Your task to perform on an android device: Go to battery settings Image 0: 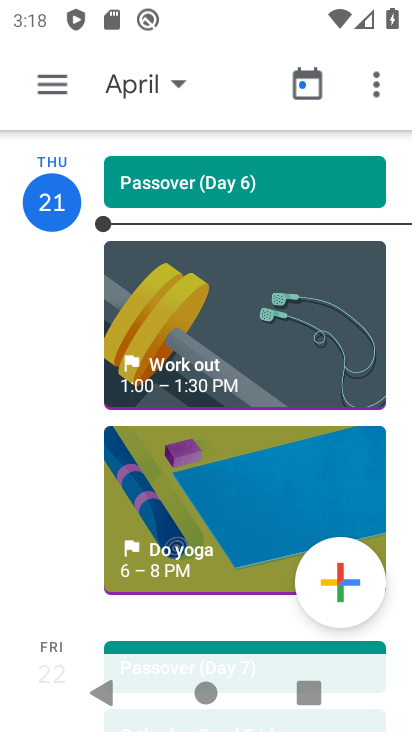
Step 0: press home button
Your task to perform on an android device: Go to battery settings Image 1: 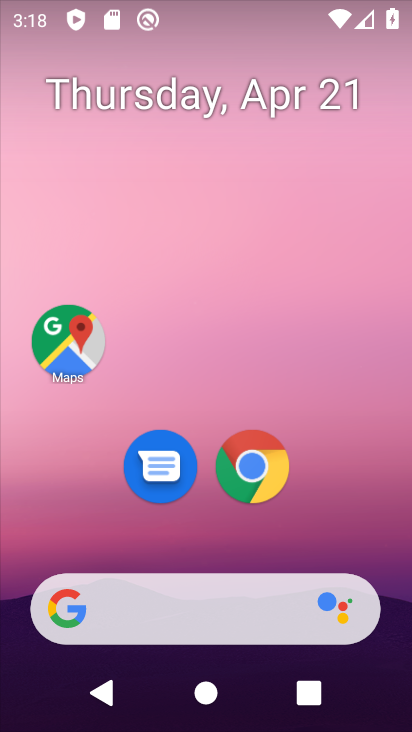
Step 1: drag from (204, 528) to (181, 194)
Your task to perform on an android device: Go to battery settings Image 2: 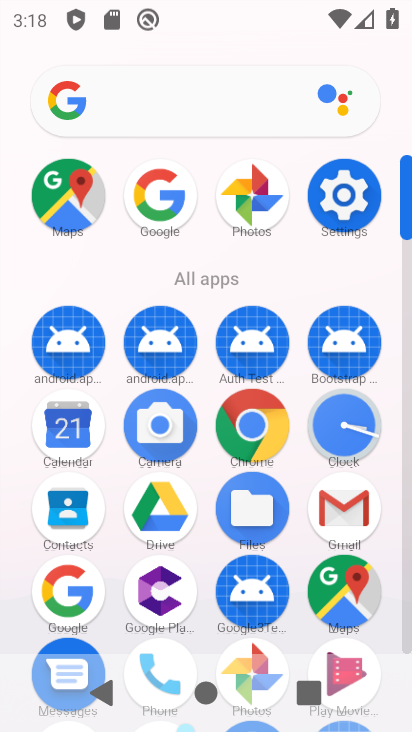
Step 2: click (330, 195)
Your task to perform on an android device: Go to battery settings Image 3: 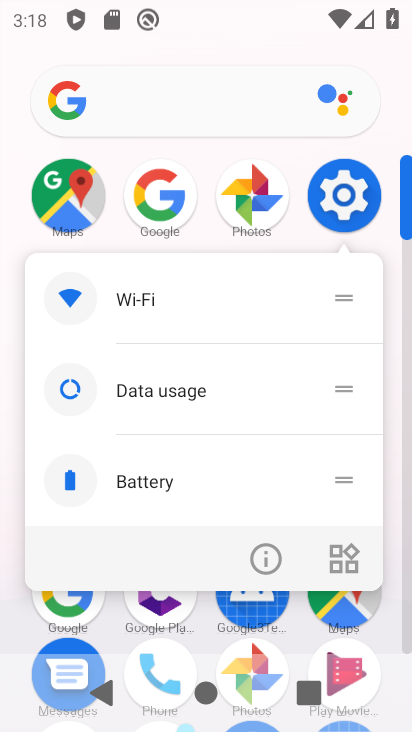
Step 3: click (356, 206)
Your task to perform on an android device: Go to battery settings Image 4: 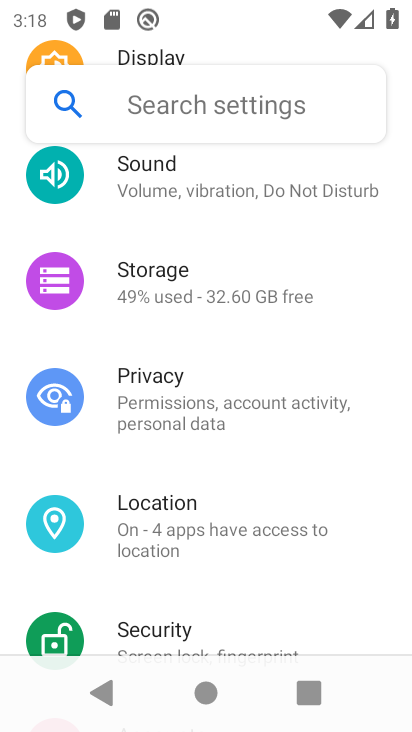
Step 4: drag from (207, 501) to (238, 475)
Your task to perform on an android device: Go to battery settings Image 5: 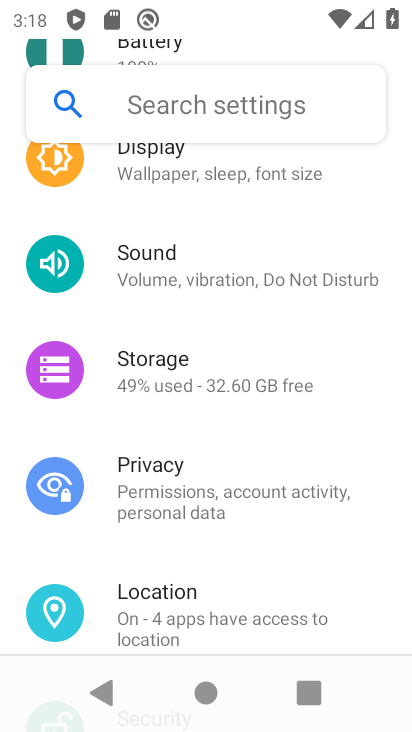
Step 5: drag from (226, 256) to (222, 484)
Your task to perform on an android device: Go to battery settings Image 6: 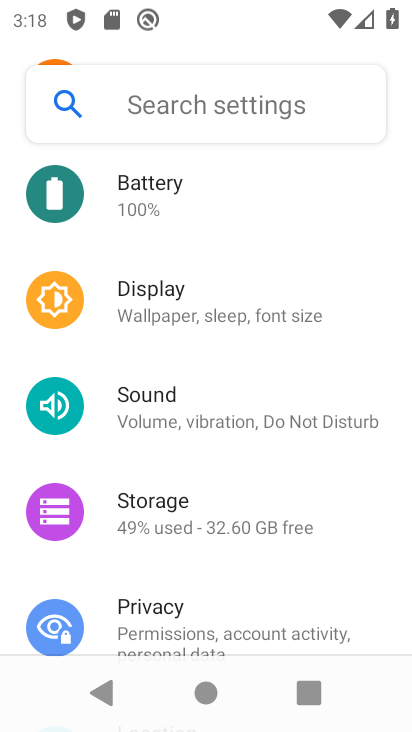
Step 6: click (181, 215)
Your task to perform on an android device: Go to battery settings Image 7: 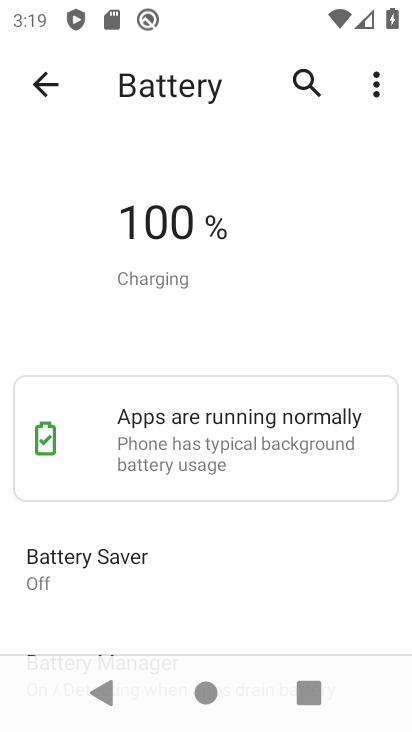
Step 7: task complete